Your task to perform on an android device: Open Google Image 0: 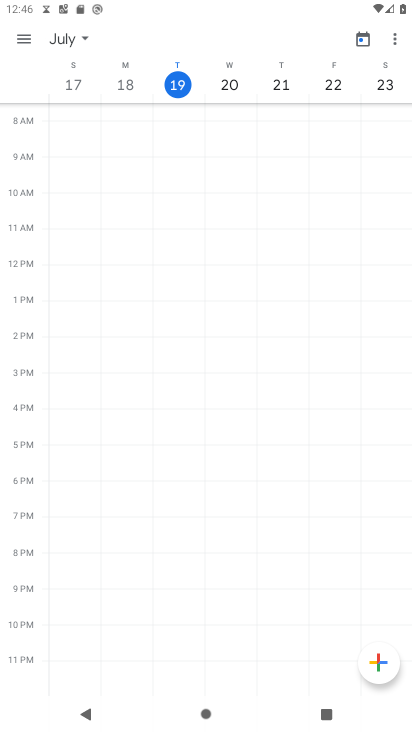
Step 0: press home button
Your task to perform on an android device: Open Google Image 1: 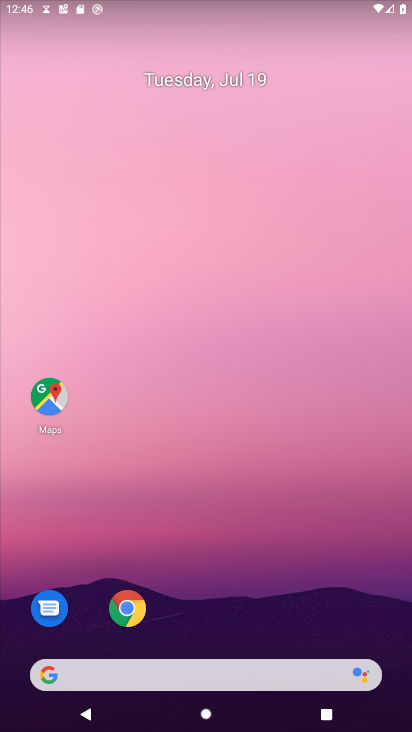
Step 1: drag from (222, 613) to (196, 96)
Your task to perform on an android device: Open Google Image 2: 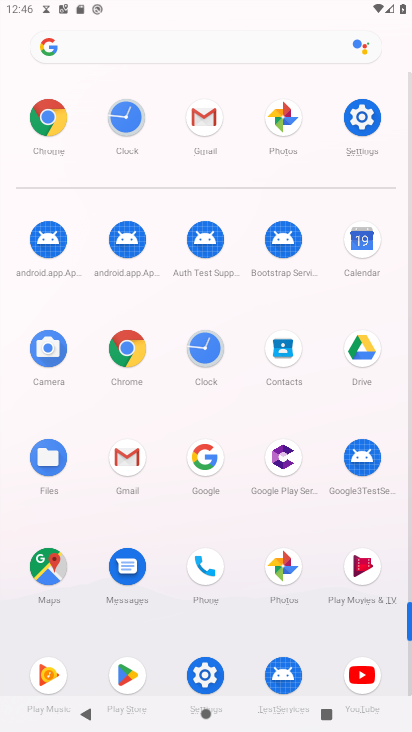
Step 2: click (206, 458)
Your task to perform on an android device: Open Google Image 3: 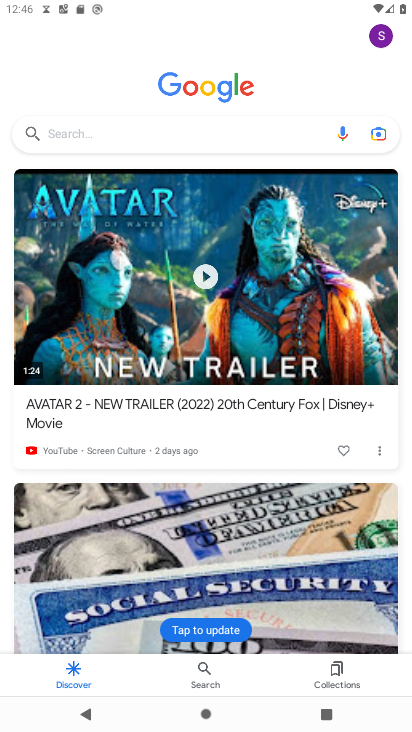
Step 3: task complete